Your task to perform on an android device: Open Google Image 0: 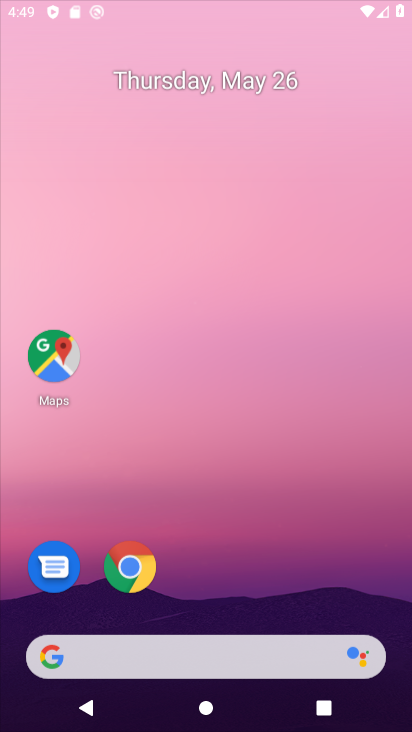
Step 0: click (138, 577)
Your task to perform on an android device: Open Google Image 1: 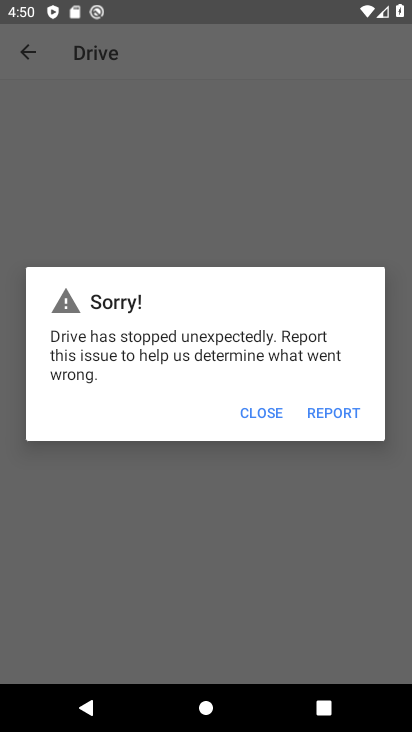
Step 1: press home button
Your task to perform on an android device: Open Google Image 2: 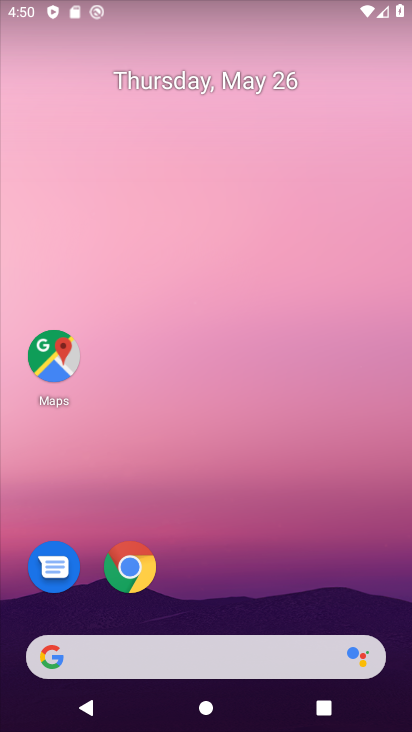
Step 2: drag from (297, 539) to (279, 191)
Your task to perform on an android device: Open Google Image 3: 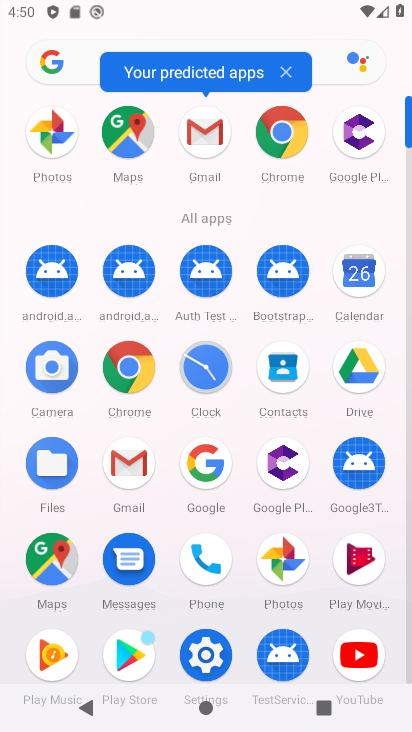
Step 3: click (200, 472)
Your task to perform on an android device: Open Google Image 4: 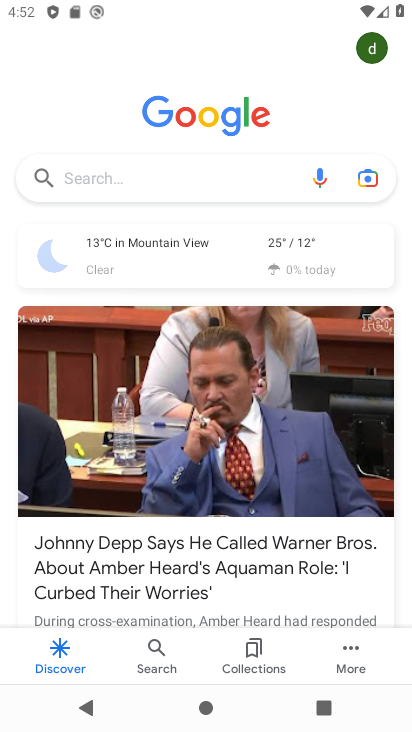
Step 4: task complete